Your task to perform on an android device: Open the map Image 0: 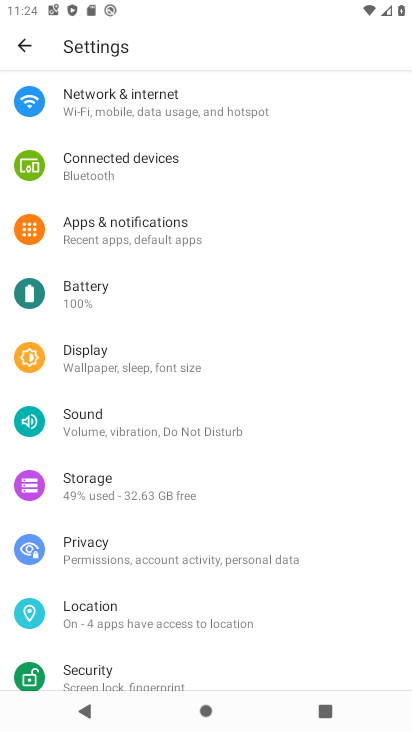
Step 0: press home button
Your task to perform on an android device: Open the map Image 1: 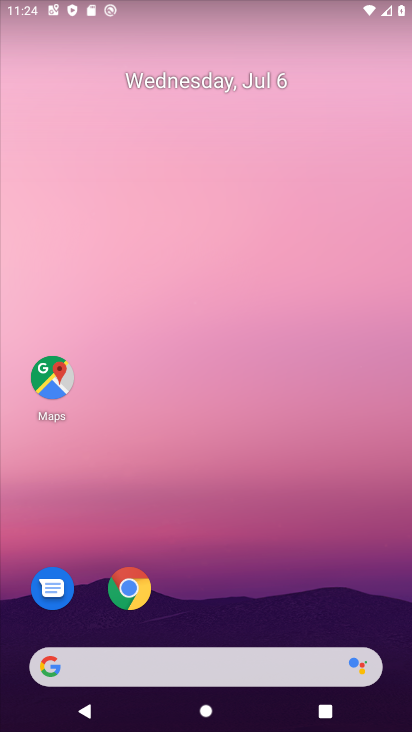
Step 1: drag from (221, 597) to (247, 308)
Your task to perform on an android device: Open the map Image 2: 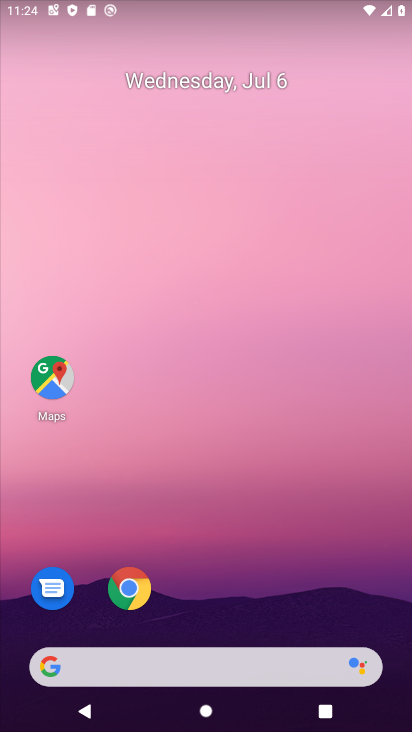
Step 2: drag from (246, 589) to (256, 132)
Your task to perform on an android device: Open the map Image 3: 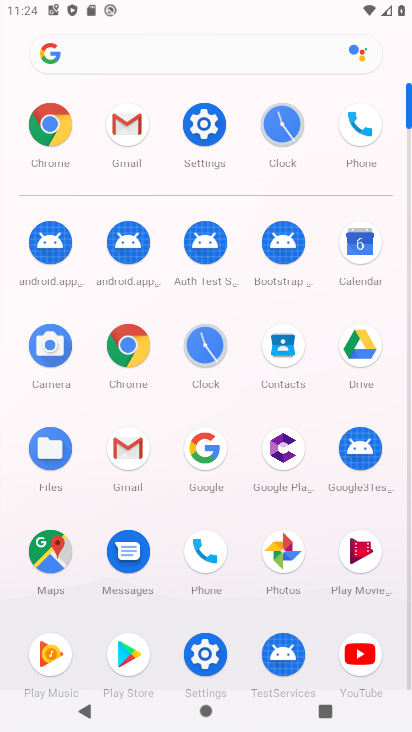
Step 3: click (58, 549)
Your task to perform on an android device: Open the map Image 4: 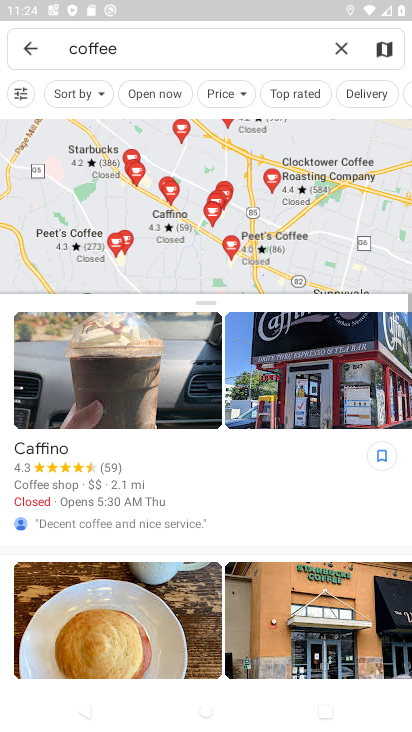
Step 4: click (341, 44)
Your task to perform on an android device: Open the map Image 5: 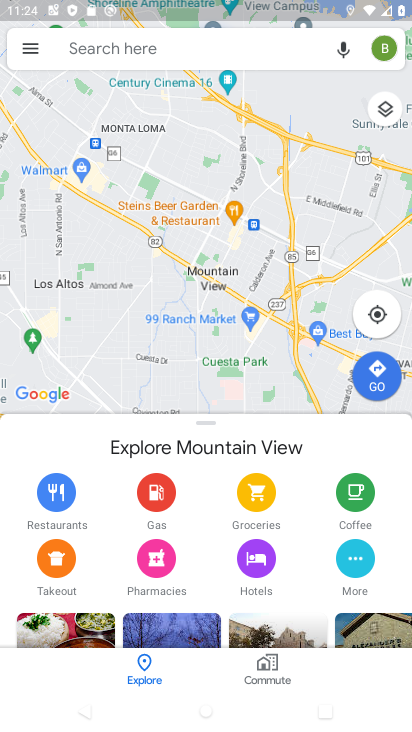
Step 5: task complete